Your task to perform on an android device: Show me recent news Image 0: 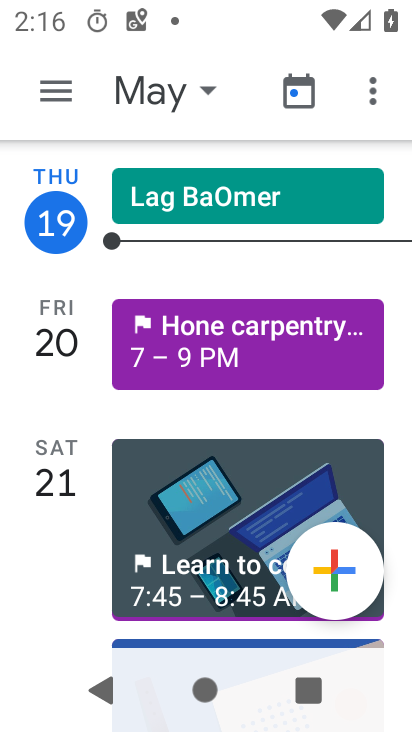
Step 0: press home button
Your task to perform on an android device: Show me recent news Image 1: 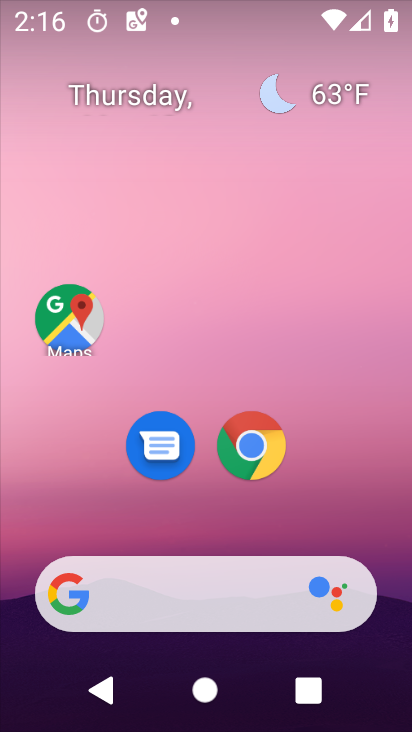
Step 1: task complete